Your task to perform on an android device: When is my next meeting? Image 0: 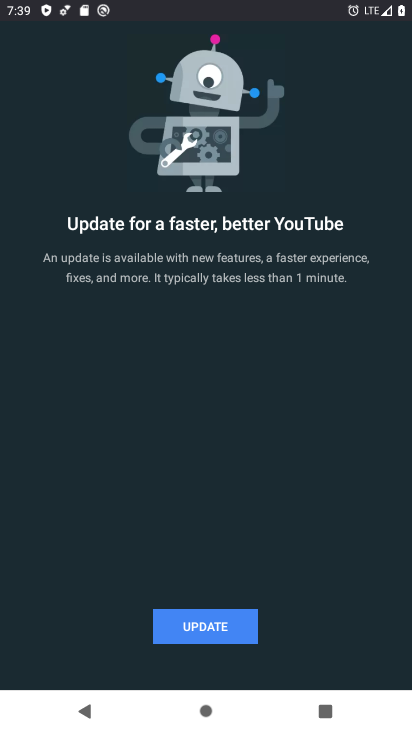
Step 0: press home button
Your task to perform on an android device: When is my next meeting? Image 1: 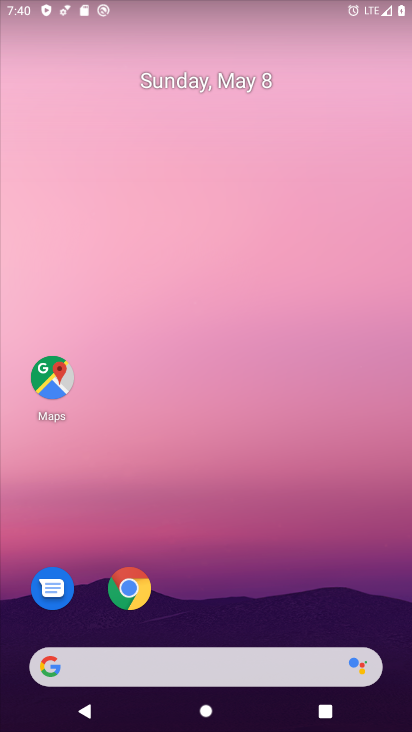
Step 1: drag from (177, 657) to (326, 158)
Your task to perform on an android device: When is my next meeting? Image 2: 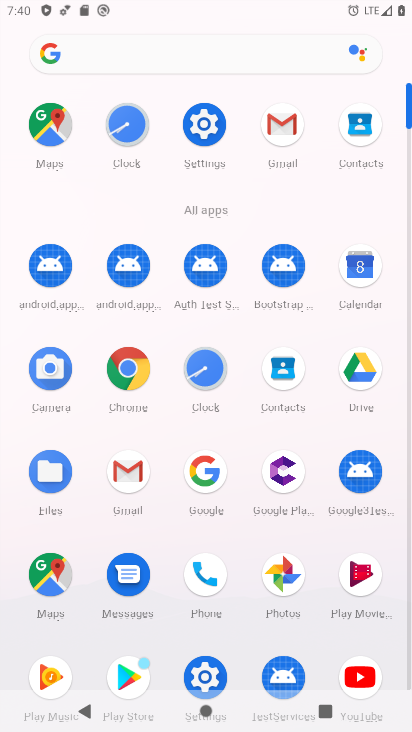
Step 2: click (367, 267)
Your task to perform on an android device: When is my next meeting? Image 3: 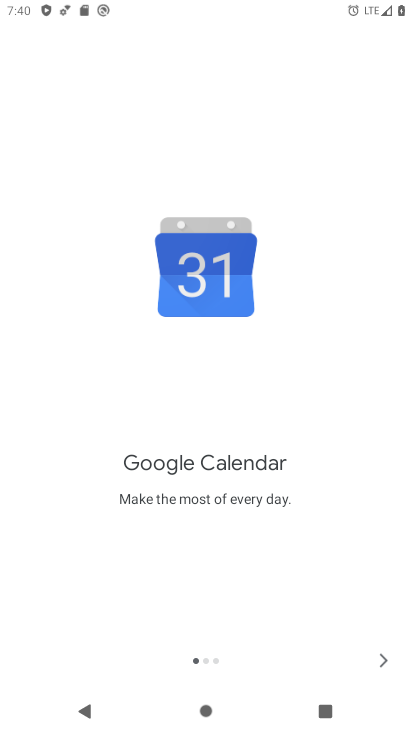
Step 3: click (381, 657)
Your task to perform on an android device: When is my next meeting? Image 4: 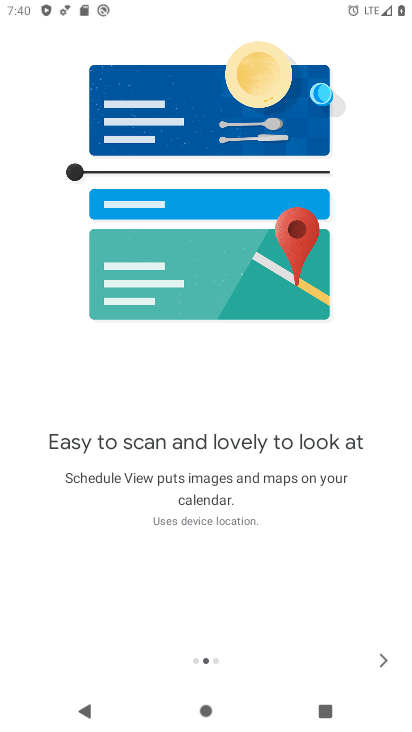
Step 4: click (381, 657)
Your task to perform on an android device: When is my next meeting? Image 5: 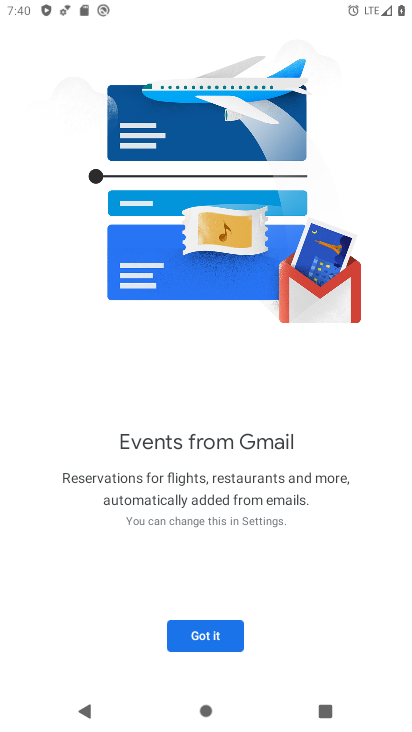
Step 5: click (381, 657)
Your task to perform on an android device: When is my next meeting? Image 6: 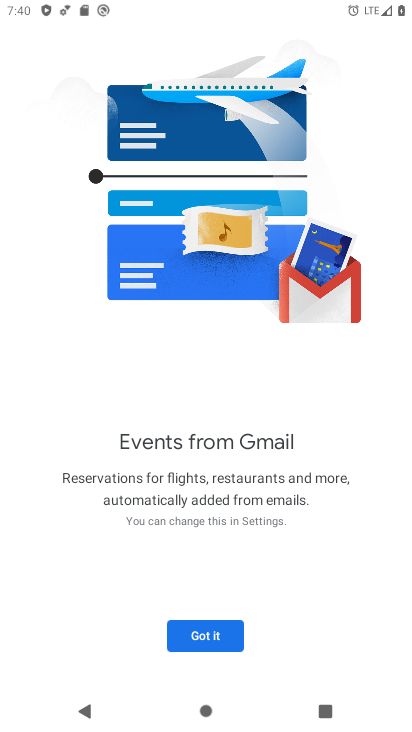
Step 6: click (210, 644)
Your task to perform on an android device: When is my next meeting? Image 7: 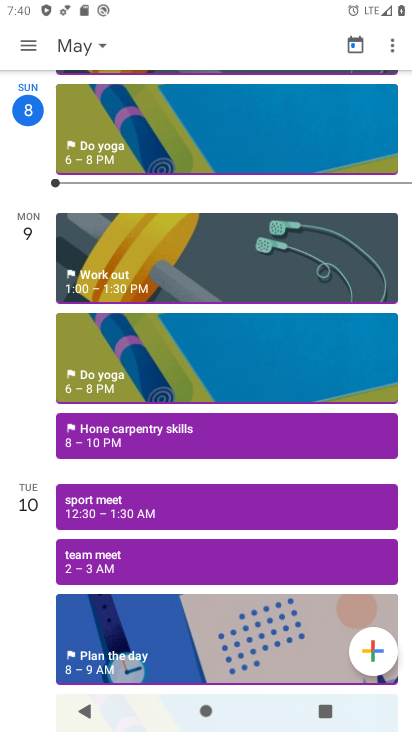
Step 7: click (60, 44)
Your task to perform on an android device: When is my next meeting? Image 8: 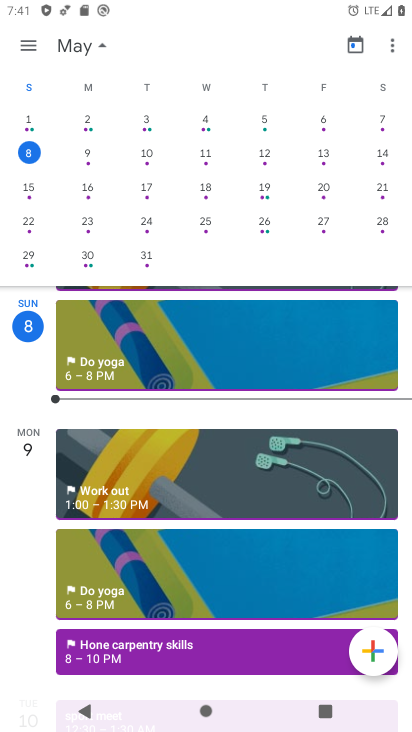
Step 8: click (25, 48)
Your task to perform on an android device: When is my next meeting? Image 9: 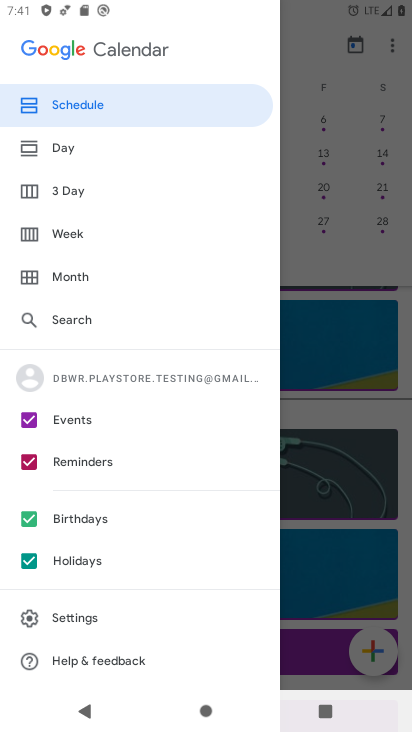
Step 9: click (65, 235)
Your task to perform on an android device: When is my next meeting? Image 10: 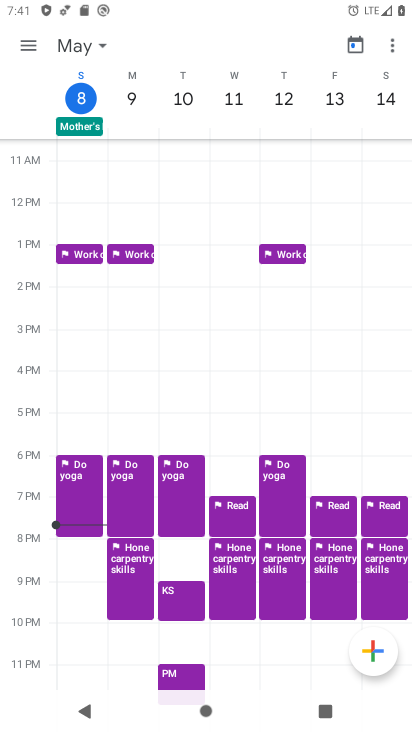
Step 10: click (25, 41)
Your task to perform on an android device: When is my next meeting? Image 11: 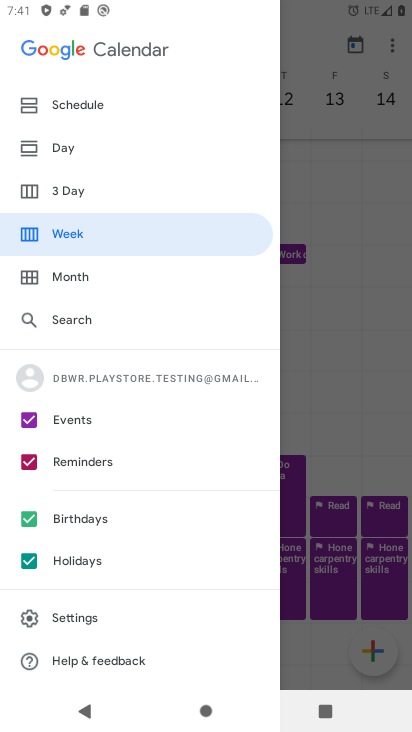
Step 11: click (80, 101)
Your task to perform on an android device: When is my next meeting? Image 12: 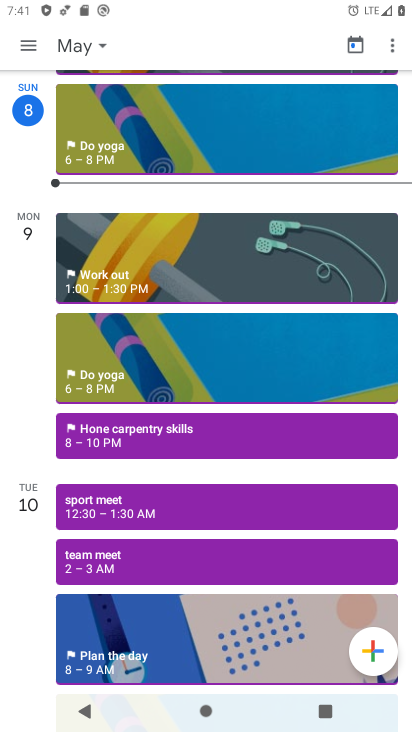
Step 12: click (176, 428)
Your task to perform on an android device: When is my next meeting? Image 13: 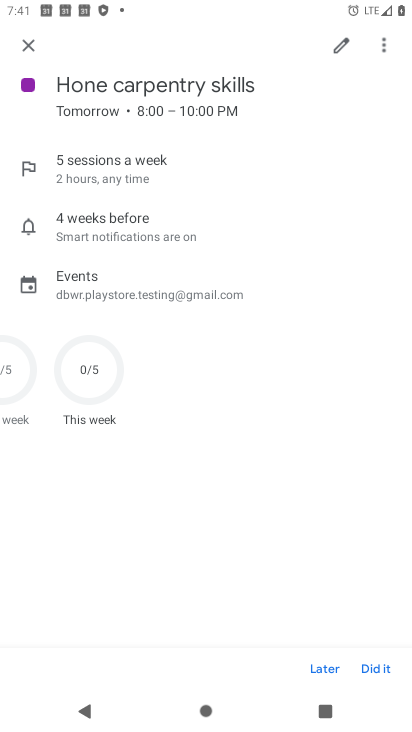
Step 13: task complete